Your task to perform on an android device: toggle data saver in the chrome app Image 0: 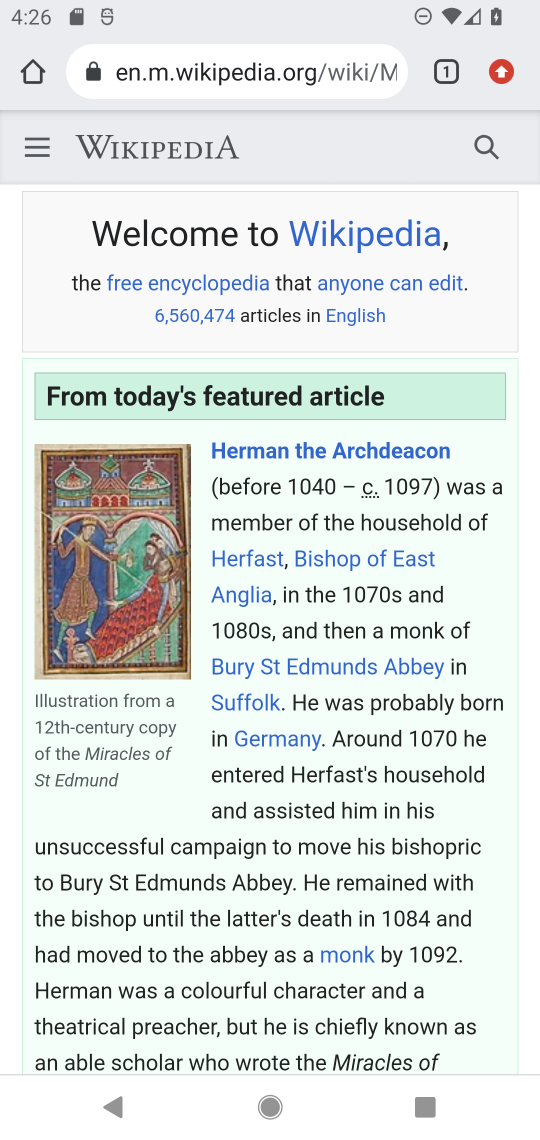
Step 0: click (500, 77)
Your task to perform on an android device: toggle data saver in the chrome app Image 1: 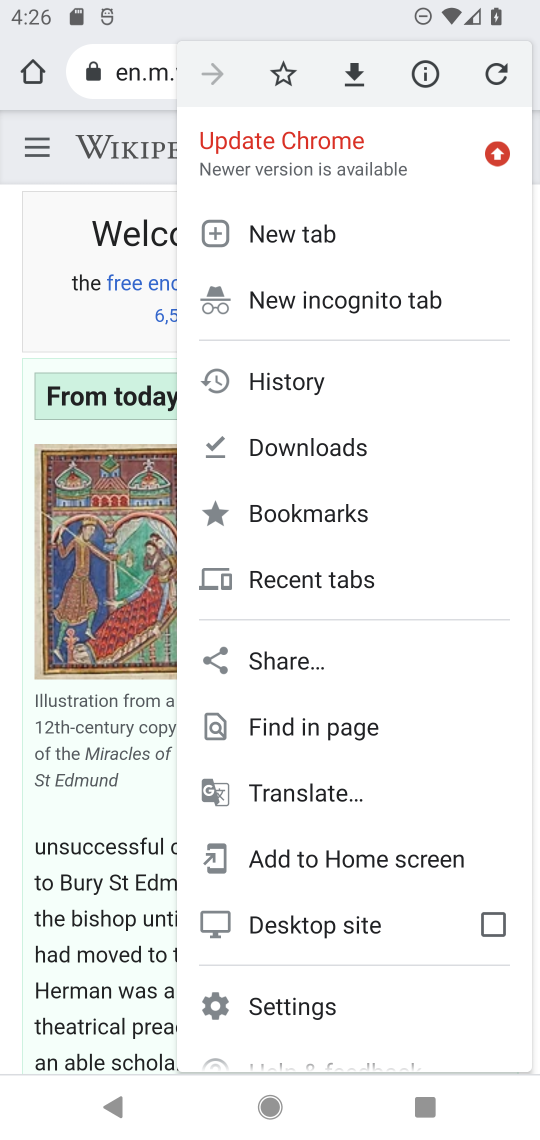
Step 1: click (311, 1008)
Your task to perform on an android device: toggle data saver in the chrome app Image 2: 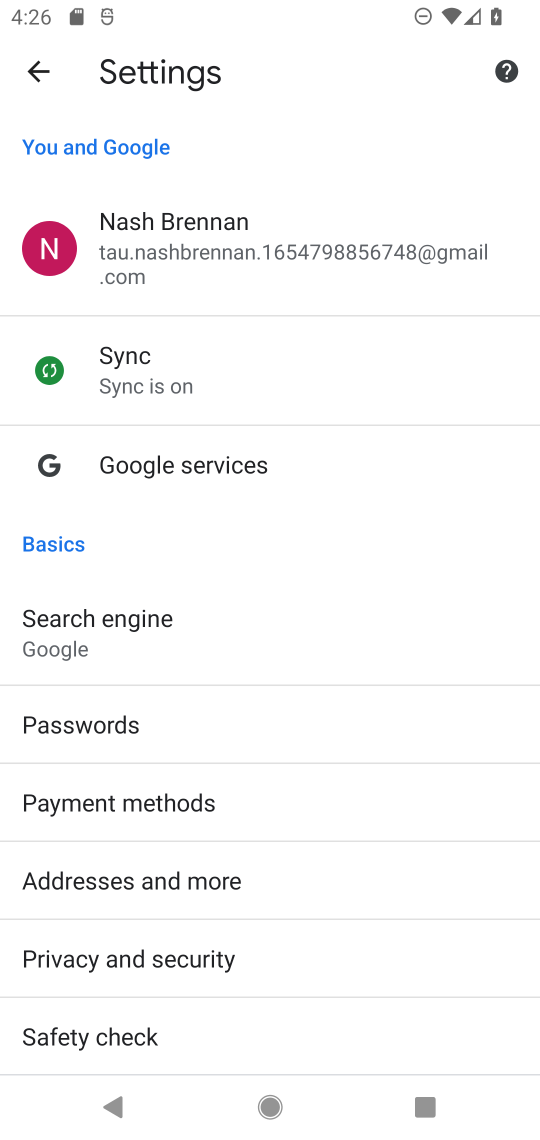
Step 2: drag from (134, 1027) to (138, 551)
Your task to perform on an android device: toggle data saver in the chrome app Image 3: 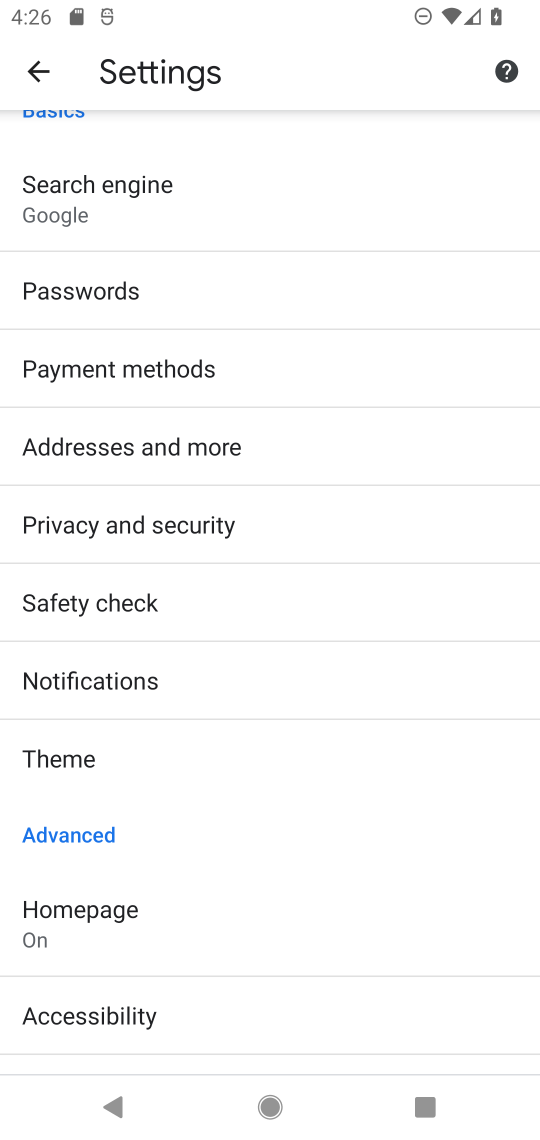
Step 3: drag from (130, 967) to (136, 507)
Your task to perform on an android device: toggle data saver in the chrome app Image 4: 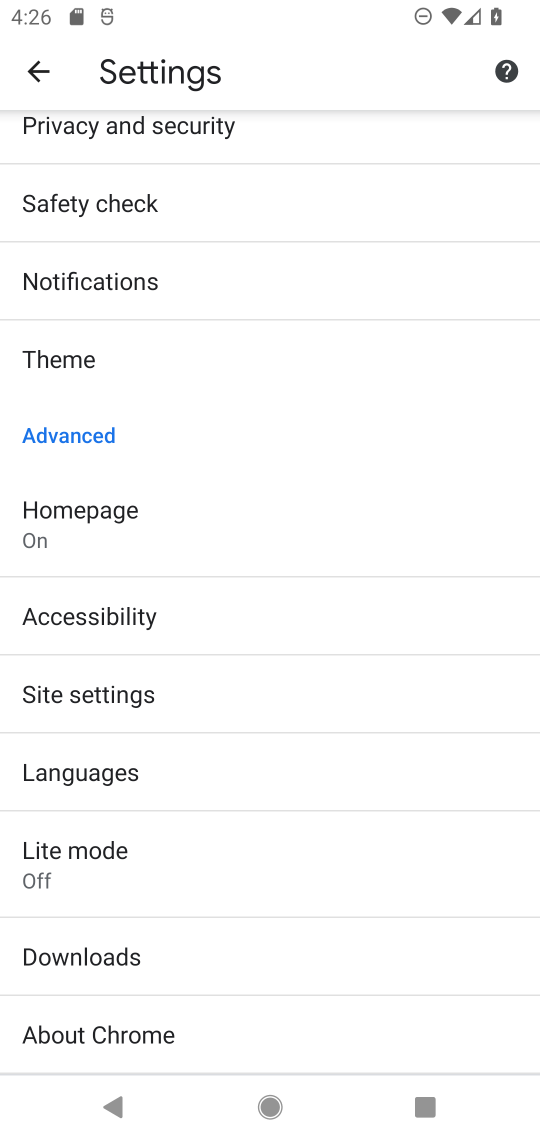
Step 4: click (70, 862)
Your task to perform on an android device: toggle data saver in the chrome app Image 5: 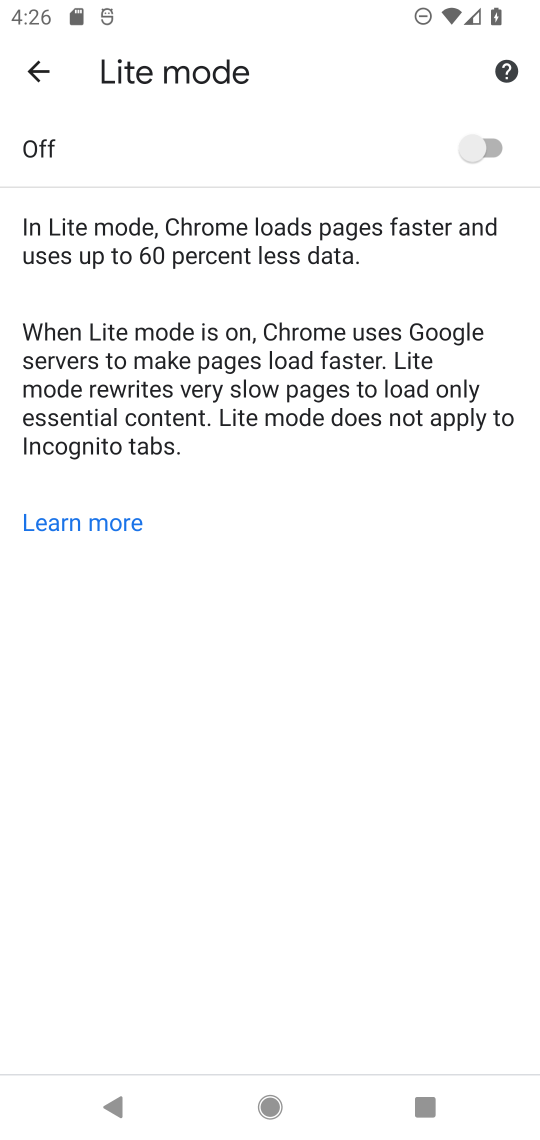
Step 5: click (492, 148)
Your task to perform on an android device: toggle data saver in the chrome app Image 6: 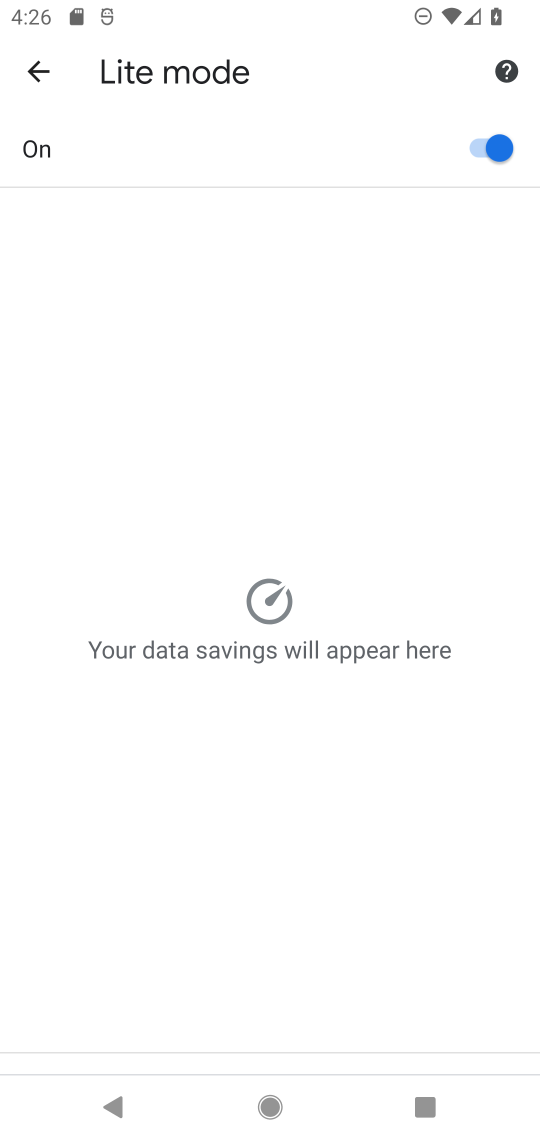
Step 6: task complete